Your task to perform on an android device: Check the weather Image 0: 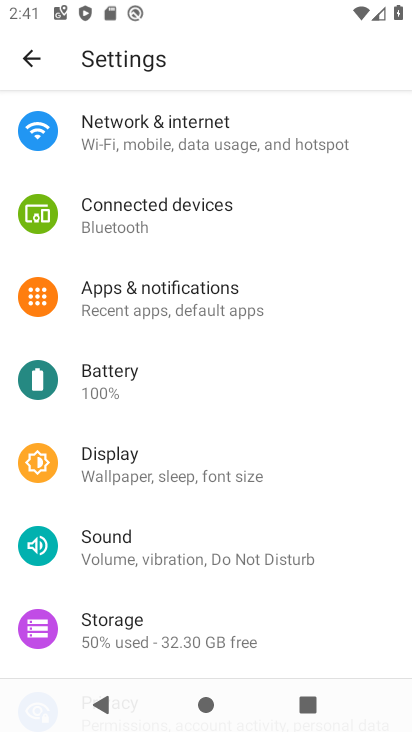
Step 0: press home button
Your task to perform on an android device: Check the weather Image 1: 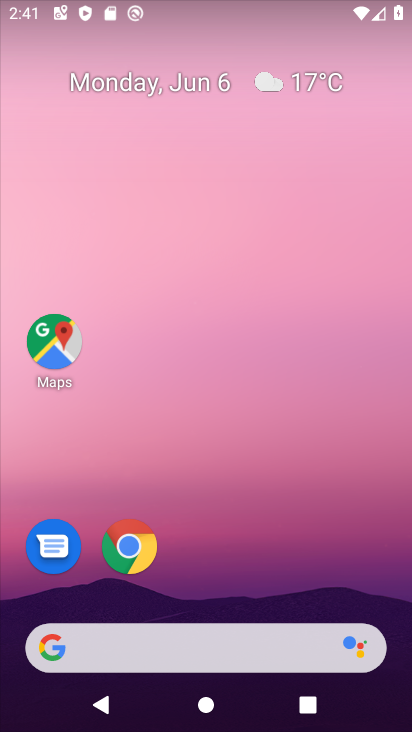
Step 1: click (171, 655)
Your task to perform on an android device: Check the weather Image 2: 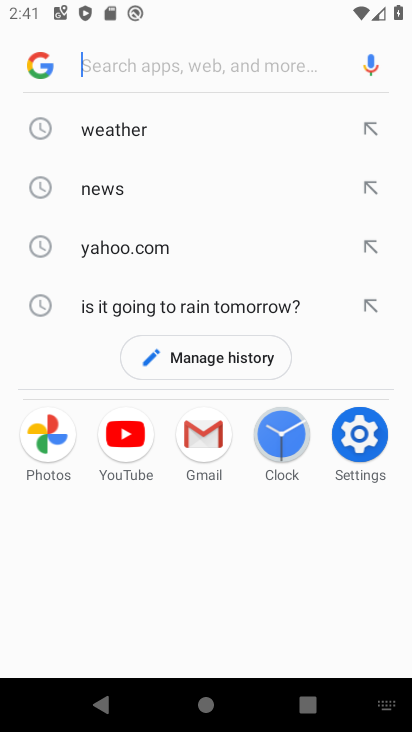
Step 2: click (181, 148)
Your task to perform on an android device: Check the weather Image 3: 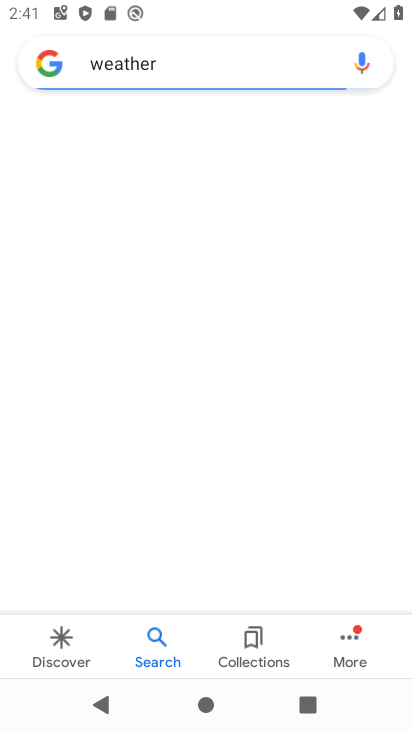
Step 3: task complete